Your task to perform on an android device: Open calendar and show me the third week of next month Image 0: 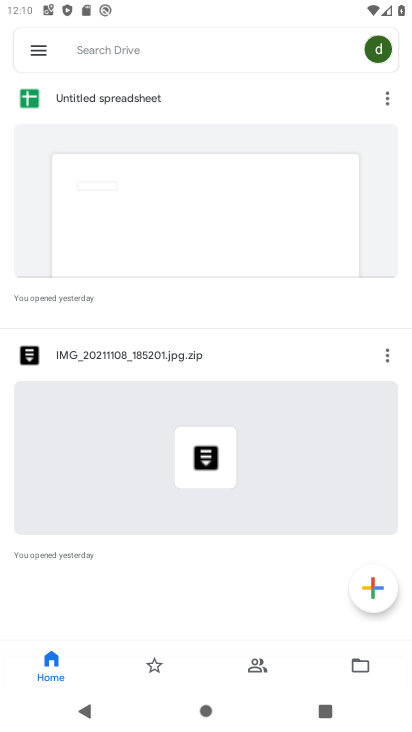
Step 0: press home button
Your task to perform on an android device: Open calendar and show me the third week of next month Image 1: 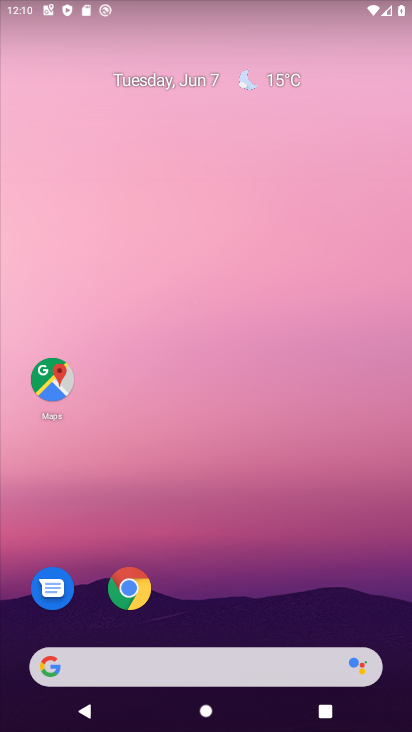
Step 1: drag from (244, 615) to (228, 267)
Your task to perform on an android device: Open calendar and show me the third week of next month Image 2: 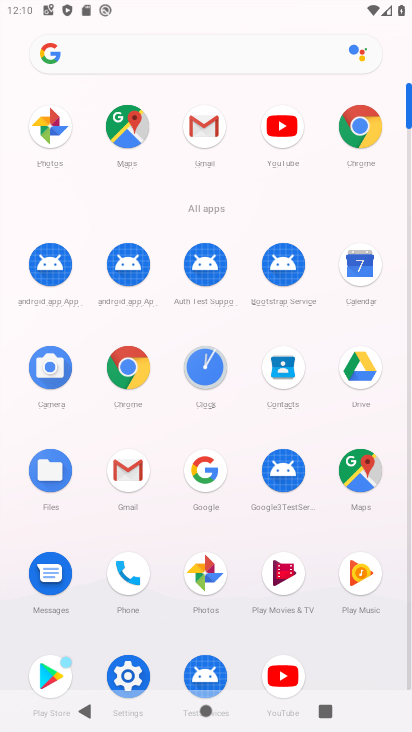
Step 2: click (368, 255)
Your task to perform on an android device: Open calendar and show me the third week of next month Image 3: 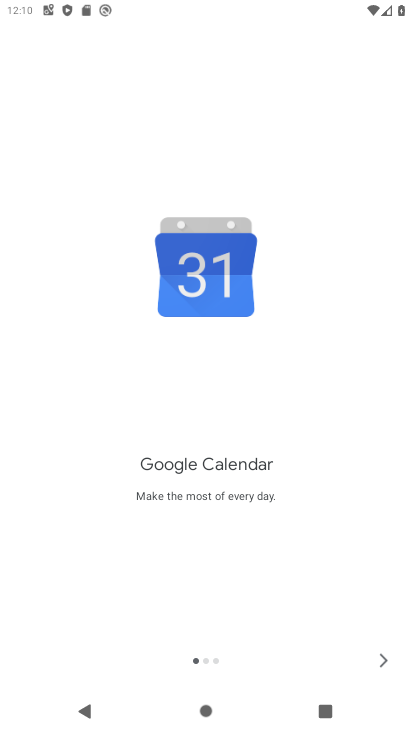
Step 3: click (392, 662)
Your task to perform on an android device: Open calendar and show me the third week of next month Image 4: 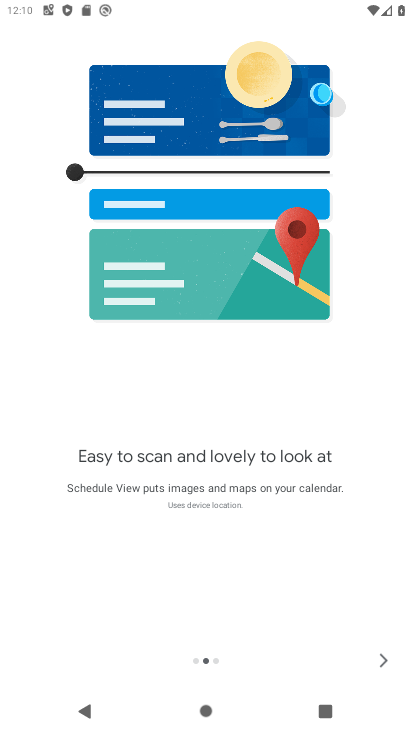
Step 4: click (392, 662)
Your task to perform on an android device: Open calendar and show me the third week of next month Image 5: 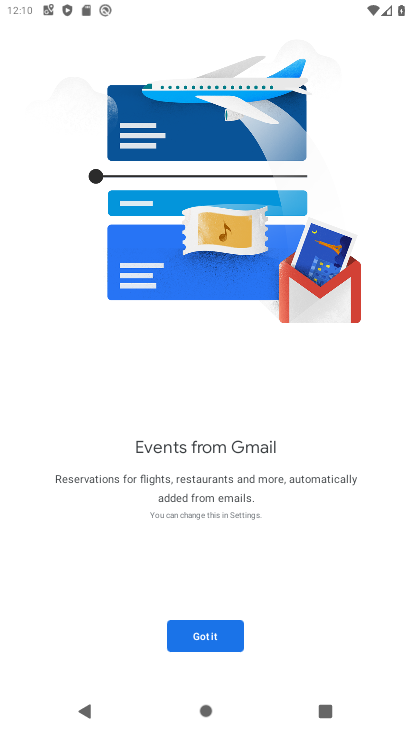
Step 5: click (392, 662)
Your task to perform on an android device: Open calendar and show me the third week of next month Image 6: 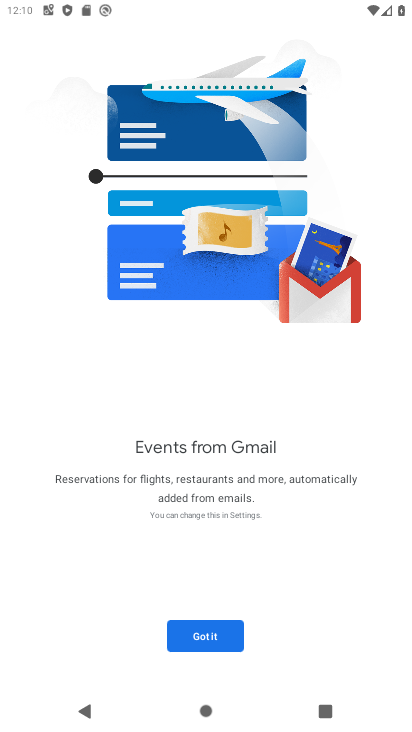
Step 6: click (221, 640)
Your task to perform on an android device: Open calendar and show me the third week of next month Image 7: 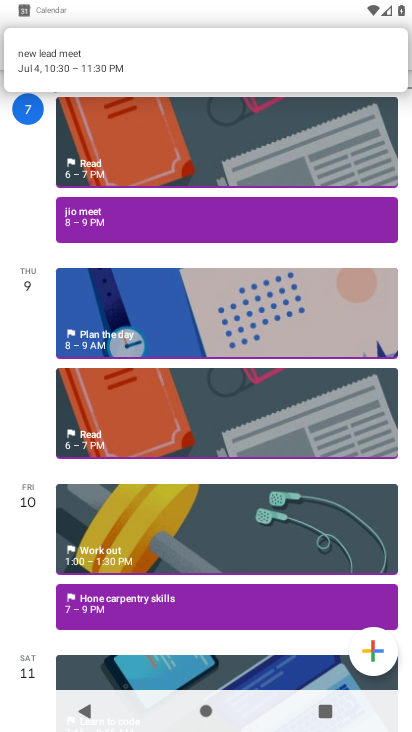
Step 7: drag from (120, 73) to (113, 2)
Your task to perform on an android device: Open calendar and show me the third week of next month Image 8: 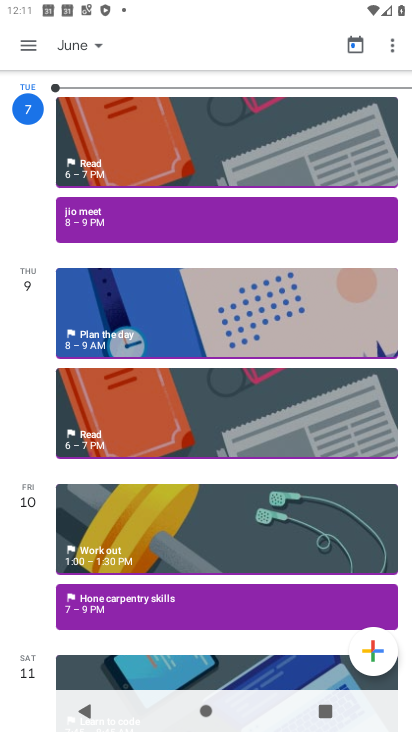
Step 8: click (26, 32)
Your task to perform on an android device: Open calendar and show me the third week of next month Image 9: 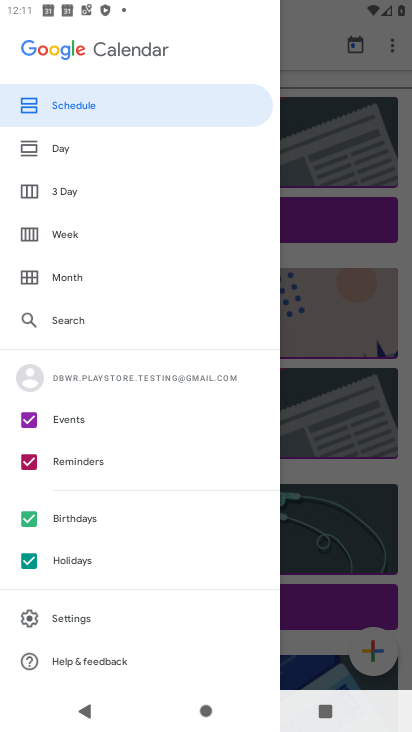
Step 9: click (83, 271)
Your task to perform on an android device: Open calendar and show me the third week of next month Image 10: 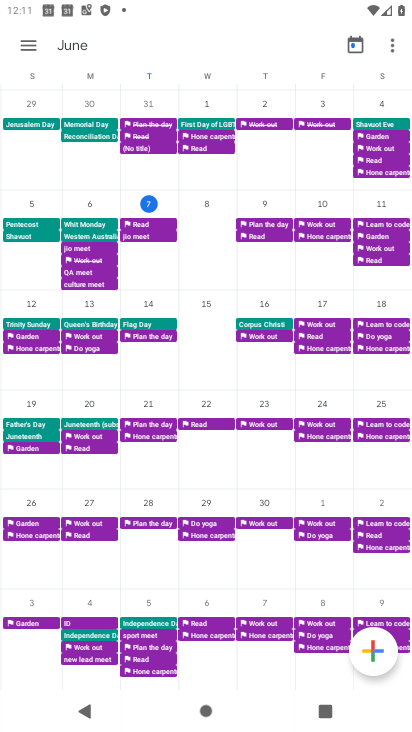
Step 10: drag from (331, 243) to (9, 304)
Your task to perform on an android device: Open calendar and show me the third week of next month Image 11: 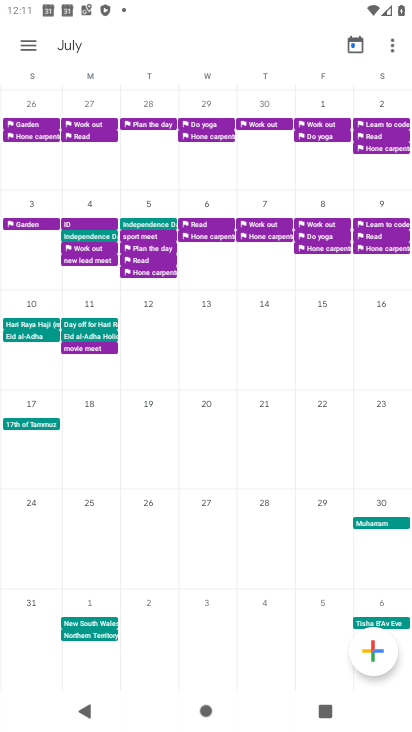
Step 11: click (24, 324)
Your task to perform on an android device: Open calendar and show me the third week of next month Image 12: 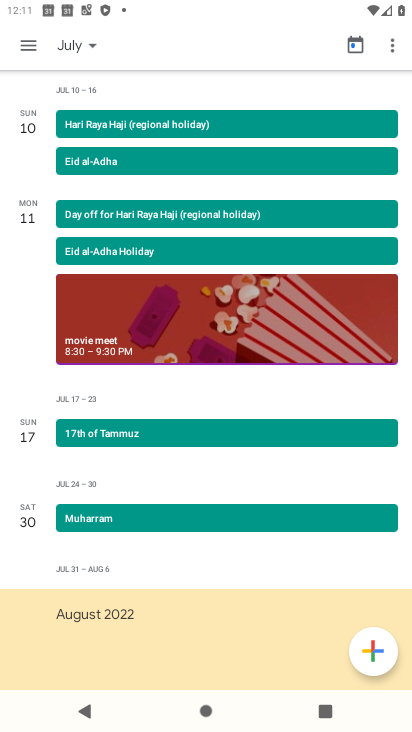
Step 12: task complete